Your task to perform on an android device: Search for seafood restaurants on Google Maps Image 0: 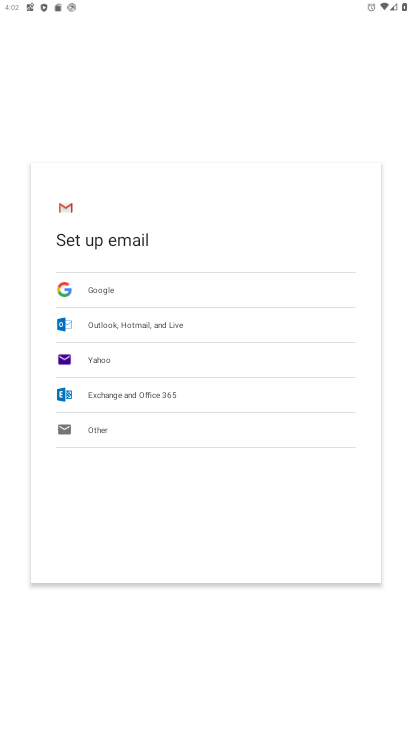
Step 0: press home button
Your task to perform on an android device: Search for seafood restaurants on Google Maps Image 1: 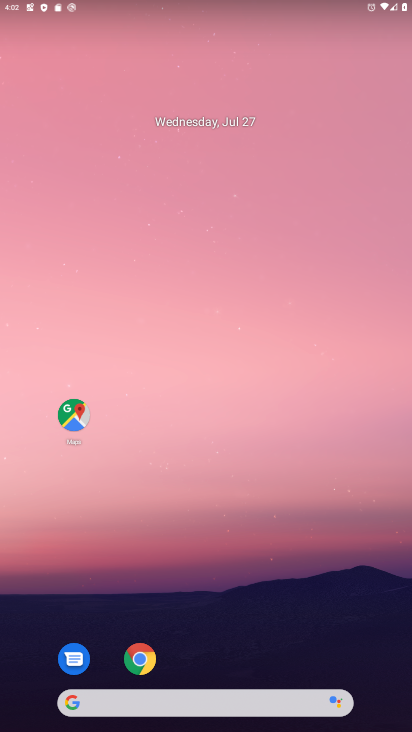
Step 1: click (70, 416)
Your task to perform on an android device: Search for seafood restaurants on Google Maps Image 2: 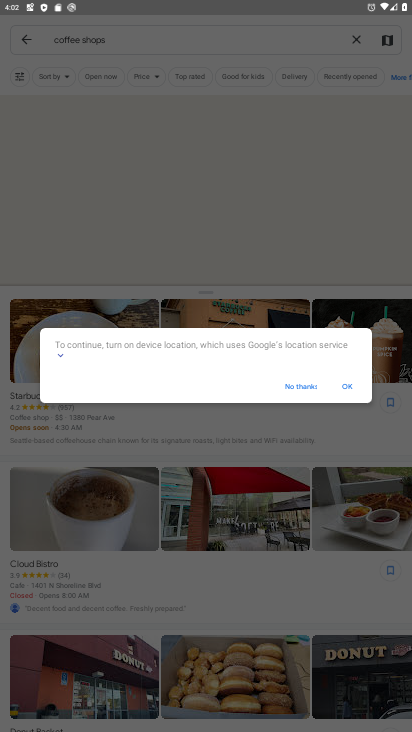
Step 2: click (198, 47)
Your task to perform on an android device: Search for seafood restaurants on Google Maps Image 3: 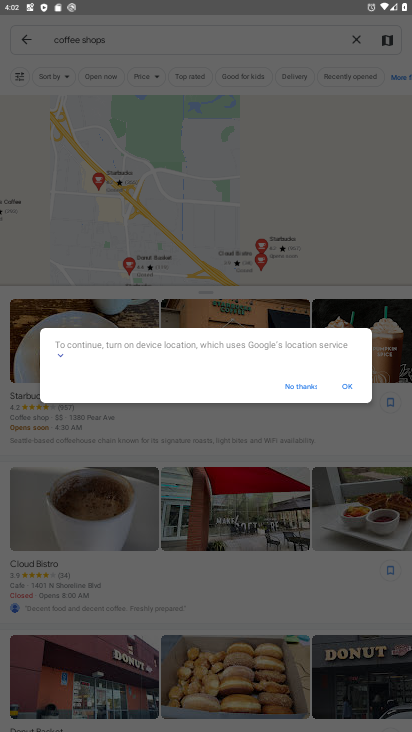
Step 3: click (308, 381)
Your task to perform on an android device: Search for seafood restaurants on Google Maps Image 4: 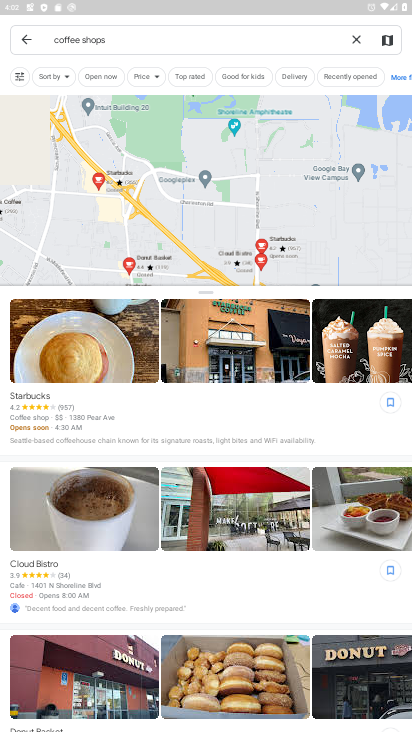
Step 4: click (114, 33)
Your task to perform on an android device: Search for seafood restaurants on Google Maps Image 5: 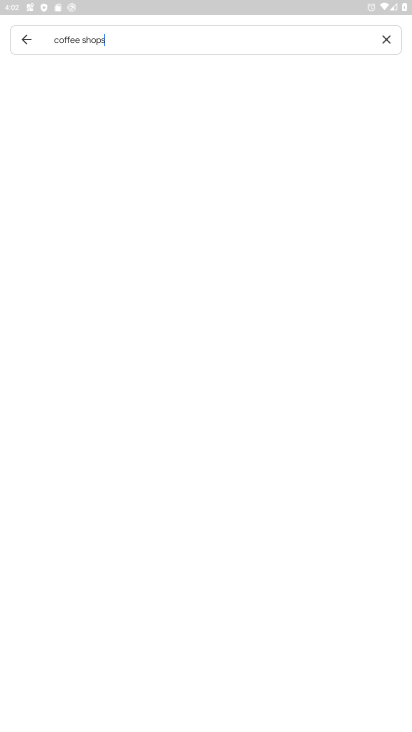
Step 5: click (380, 35)
Your task to perform on an android device: Search for seafood restaurants on Google Maps Image 6: 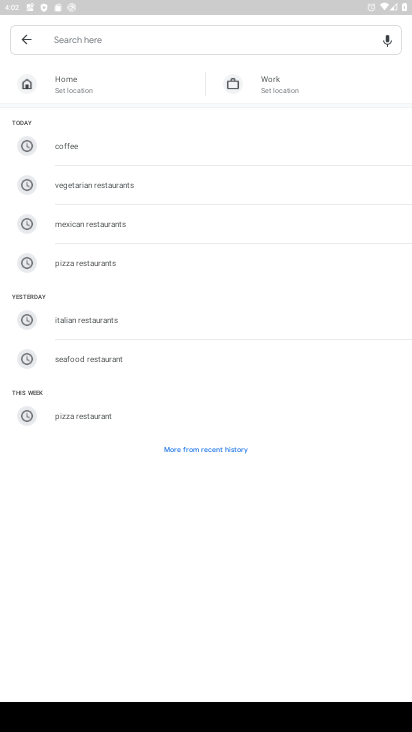
Step 6: type "seafood restaurants"
Your task to perform on an android device: Search for seafood restaurants on Google Maps Image 7: 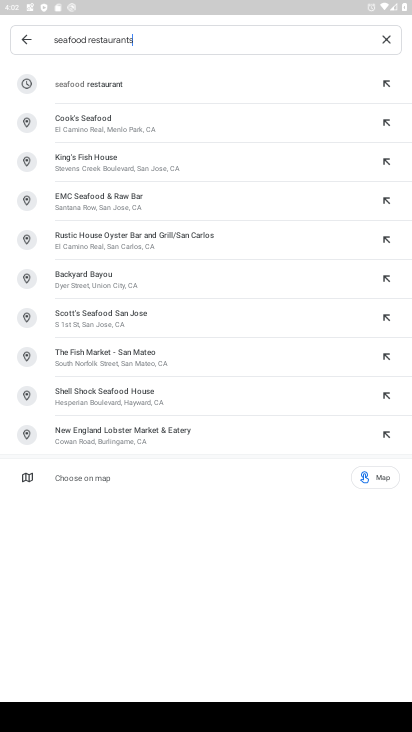
Step 7: click (62, 80)
Your task to perform on an android device: Search for seafood restaurants on Google Maps Image 8: 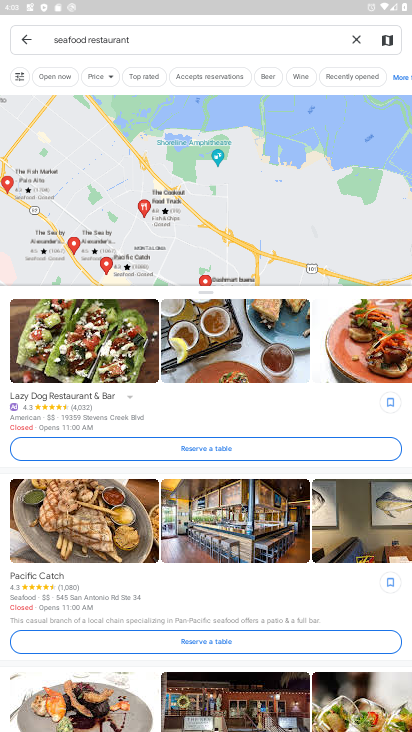
Step 8: task complete